Your task to perform on an android device: Do I have any events this weekend? Image 0: 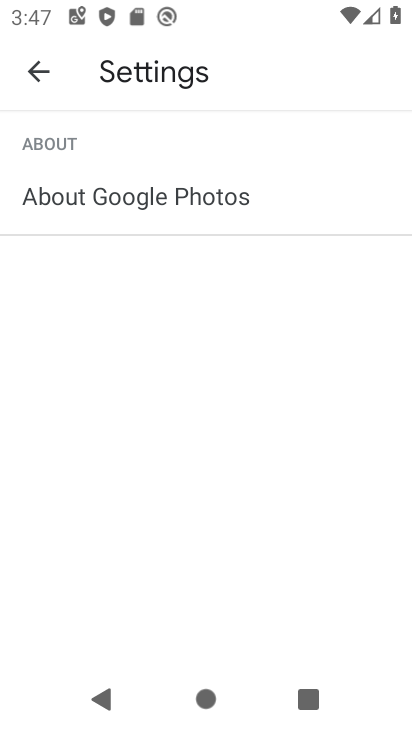
Step 0: press home button
Your task to perform on an android device: Do I have any events this weekend? Image 1: 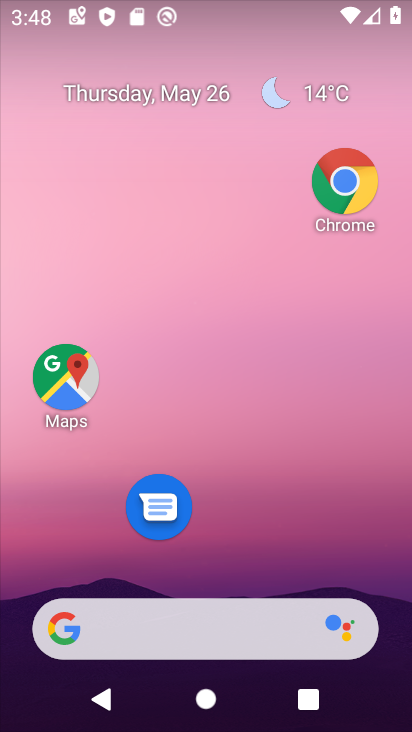
Step 1: drag from (274, 538) to (311, 83)
Your task to perform on an android device: Do I have any events this weekend? Image 2: 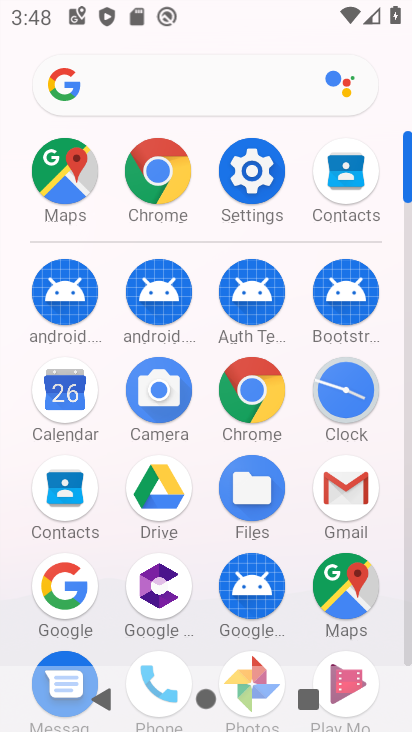
Step 2: click (66, 383)
Your task to perform on an android device: Do I have any events this weekend? Image 3: 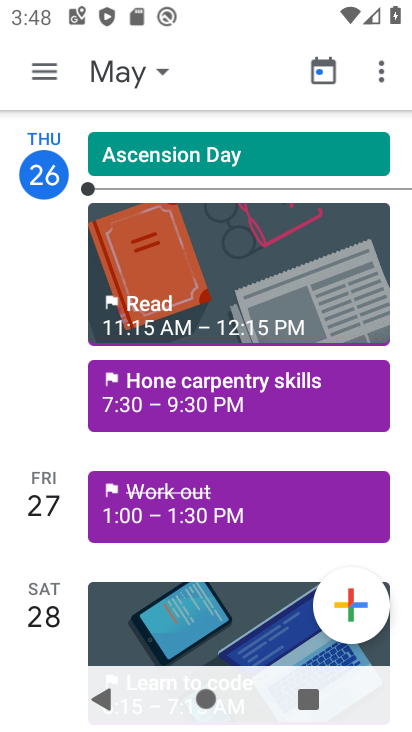
Step 3: click (147, 75)
Your task to perform on an android device: Do I have any events this weekend? Image 4: 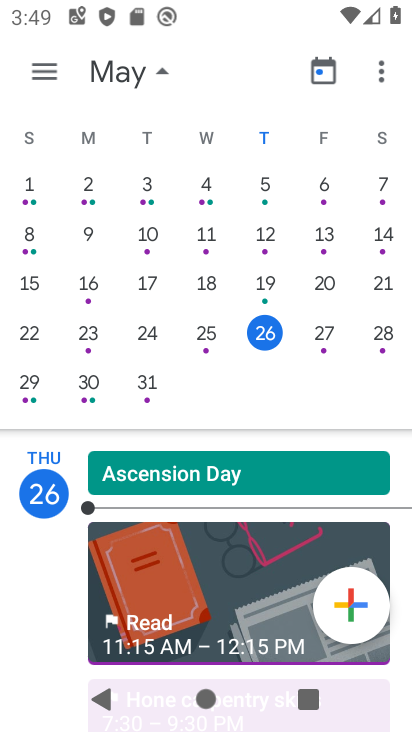
Step 4: click (323, 333)
Your task to perform on an android device: Do I have any events this weekend? Image 5: 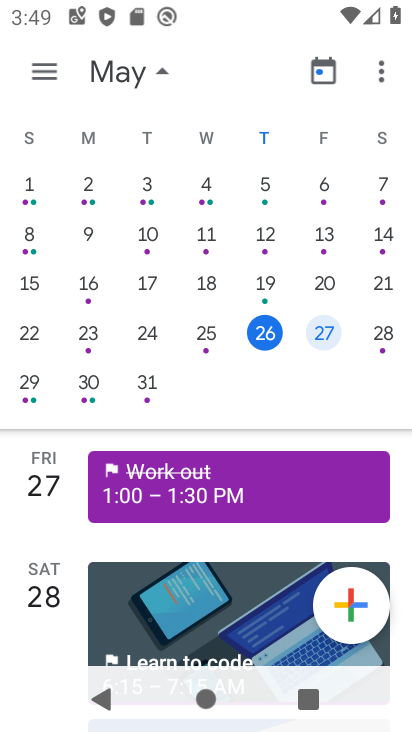
Step 5: task complete